Your task to perform on an android device: remove spam from my inbox in the gmail app Image 0: 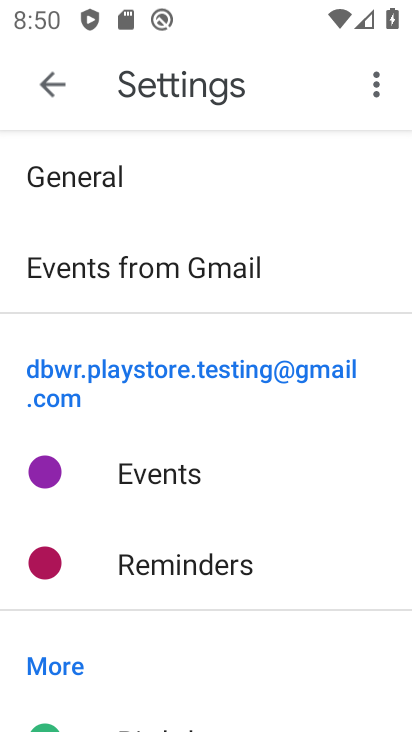
Step 0: press home button
Your task to perform on an android device: remove spam from my inbox in the gmail app Image 1: 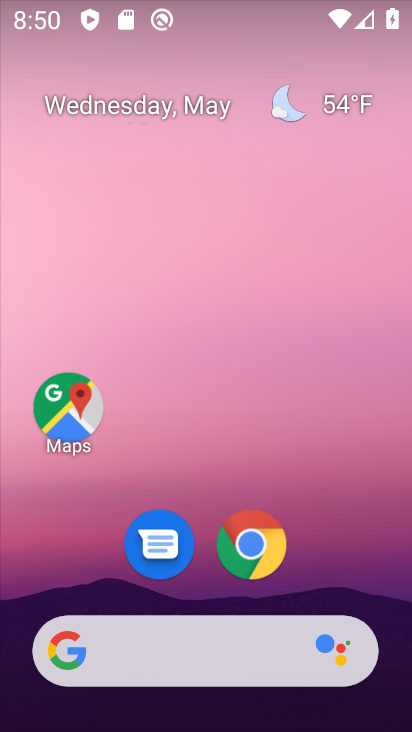
Step 1: drag from (187, 591) to (189, 127)
Your task to perform on an android device: remove spam from my inbox in the gmail app Image 2: 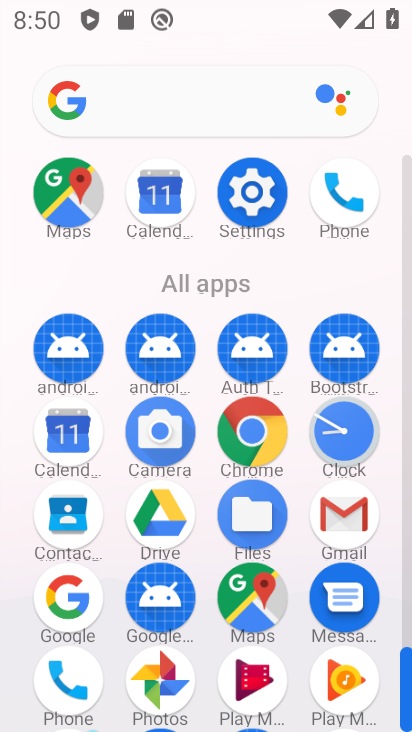
Step 2: click (331, 516)
Your task to perform on an android device: remove spam from my inbox in the gmail app Image 3: 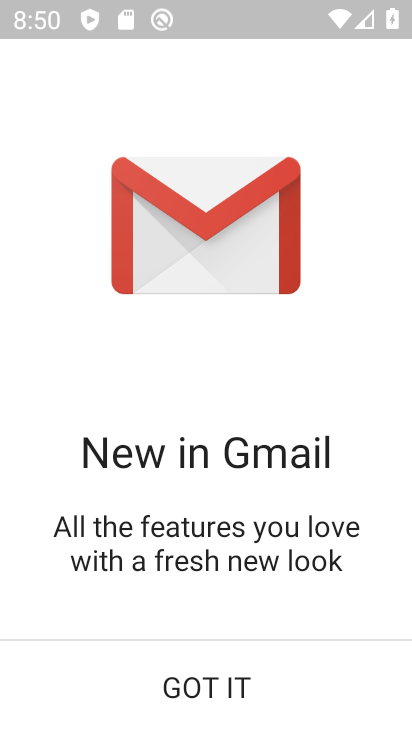
Step 3: click (177, 664)
Your task to perform on an android device: remove spam from my inbox in the gmail app Image 4: 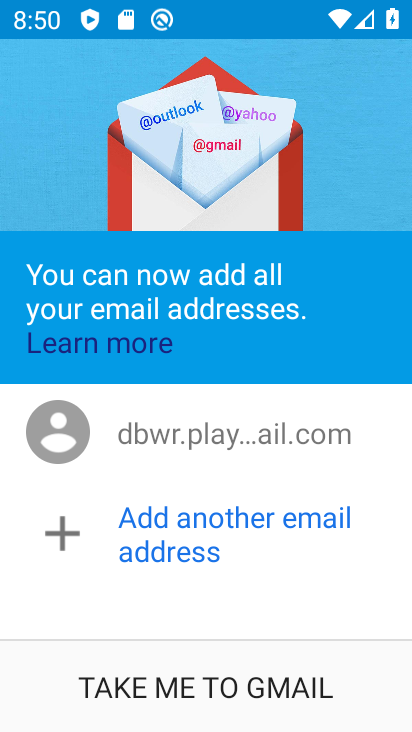
Step 4: click (152, 656)
Your task to perform on an android device: remove spam from my inbox in the gmail app Image 5: 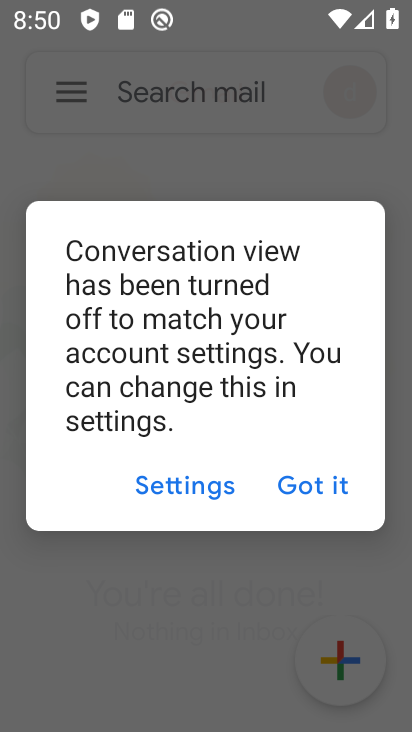
Step 5: click (307, 483)
Your task to perform on an android device: remove spam from my inbox in the gmail app Image 6: 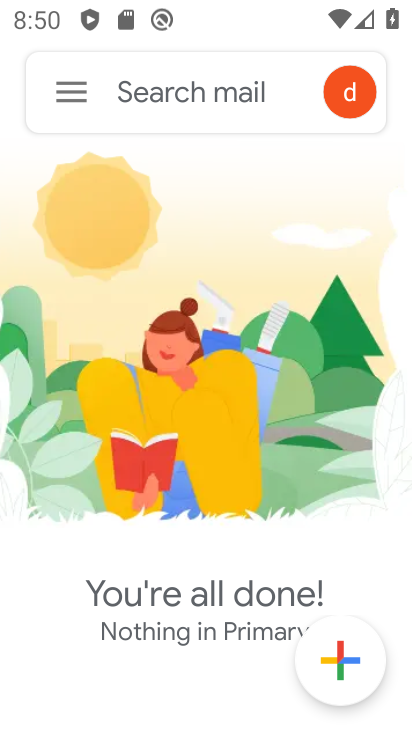
Step 6: click (57, 91)
Your task to perform on an android device: remove spam from my inbox in the gmail app Image 7: 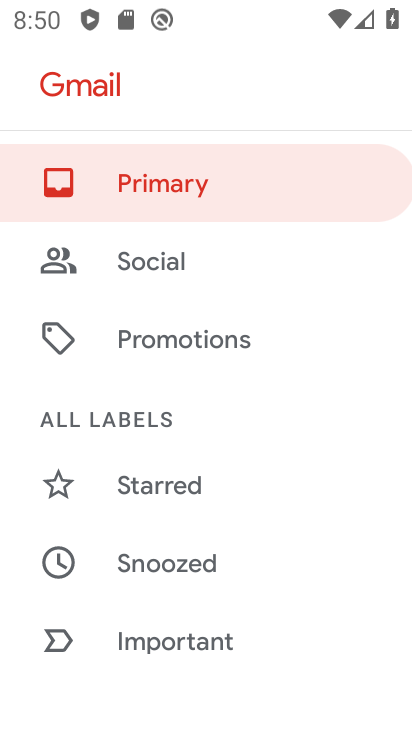
Step 7: drag from (68, 626) to (183, 167)
Your task to perform on an android device: remove spam from my inbox in the gmail app Image 8: 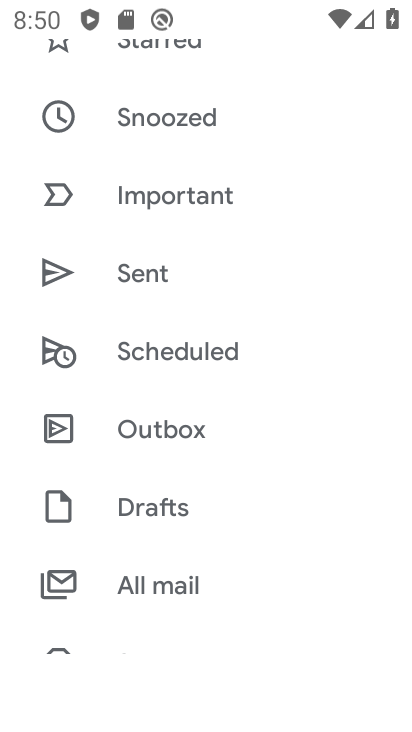
Step 8: drag from (149, 511) to (280, 93)
Your task to perform on an android device: remove spam from my inbox in the gmail app Image 9: 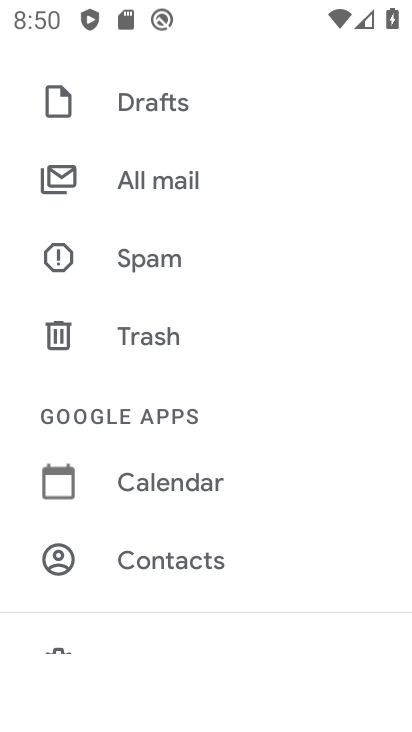
Step 9: click (174, 233)
Your task to perform on an android device: remove spam from my inbox in the gmail app Image 10: 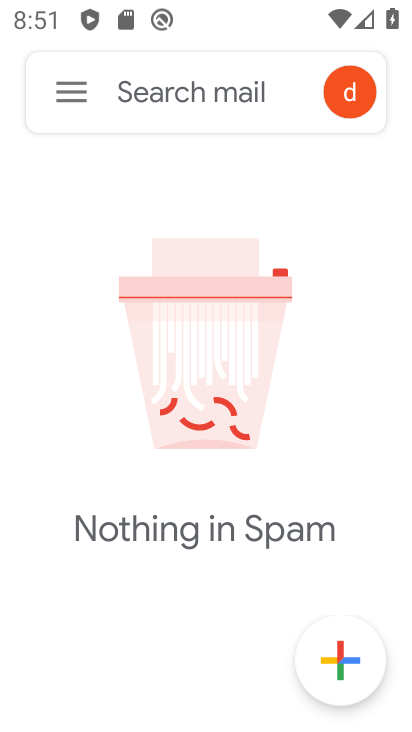
Step 10: task complete